Your task to perform on an android device: toggle airplane mode Image 0: 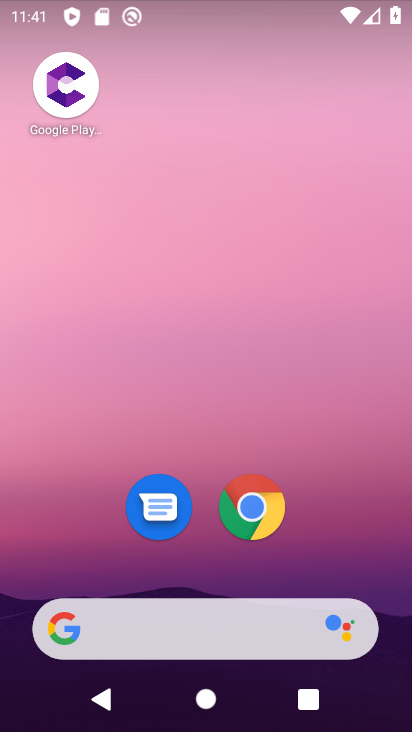
Step 0: drag from (345, 17) to (359, 439)
Your task to perform on an android device: toggle airplane mode Image 1: 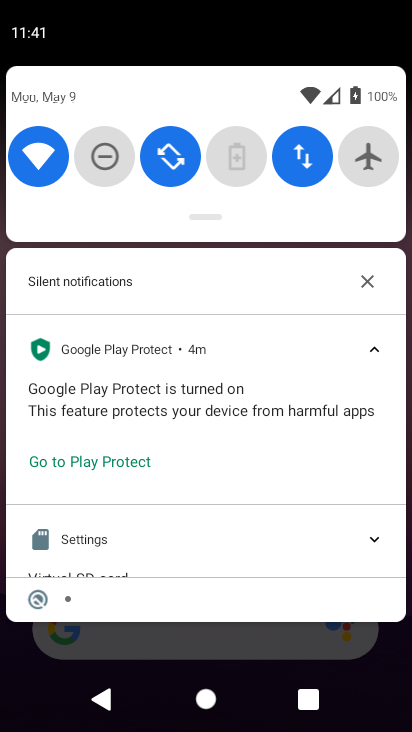
Step 1: click (359, 156)
Your task to perform on an android device: toggle airplane mode Image 2: 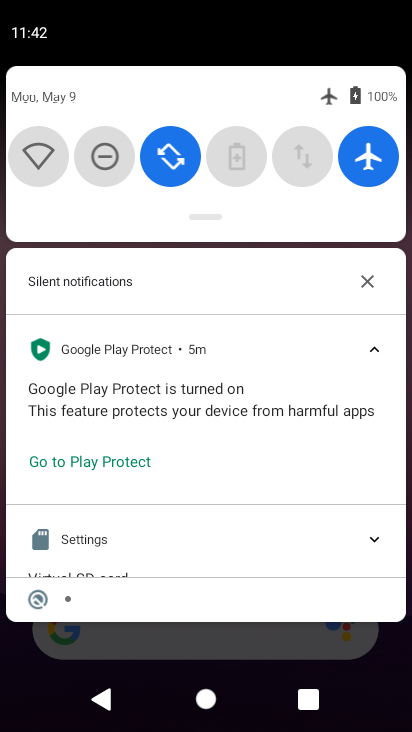
Step 2: task complete